Your task to perform on an android device: toggle airplane mode Image 0: 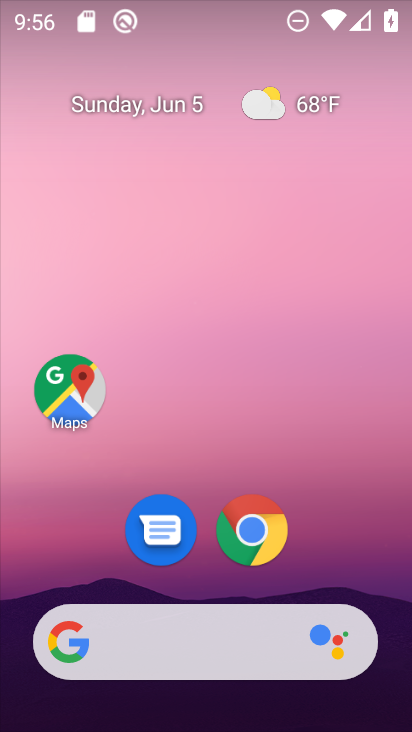
Step 0: drag from (391, 622) to (315, 79)
Your task to perform on an android device: toggle airplane mode Image 1: 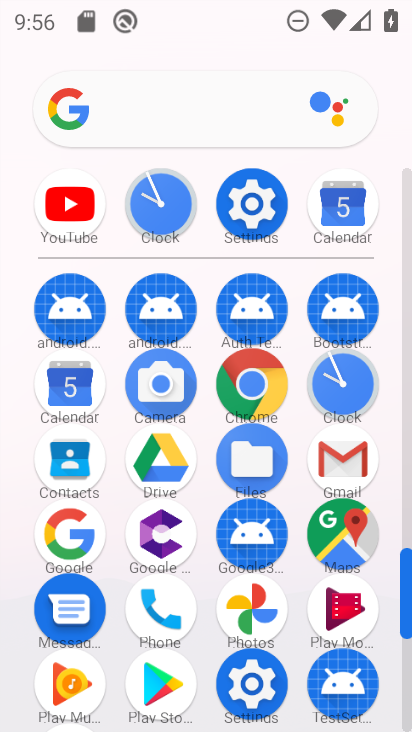
Step 1: click (411, 683)
Your task to perform on an android device: toggle airplane mode Image 2: 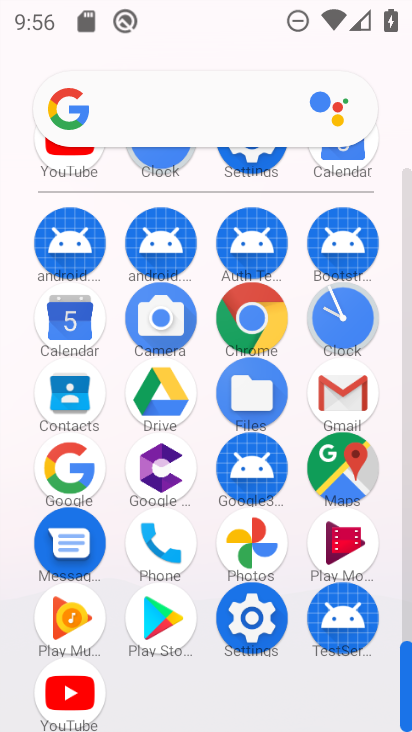
Step 2: click (251, 613)
Your task to perform on an android device: toggle airplane mode Image 3: 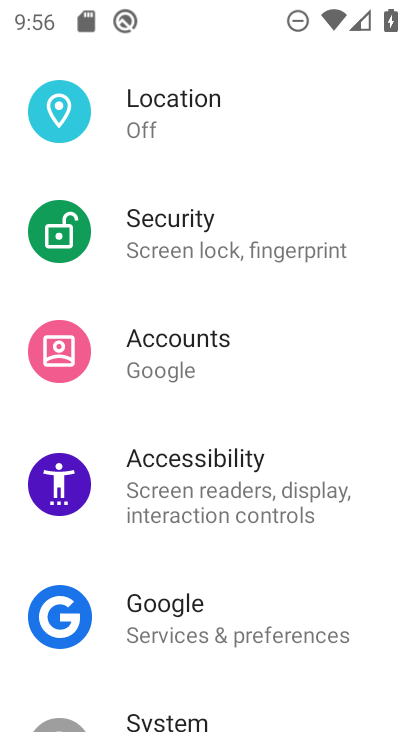
Step 3: drag from (298, 155) to (328, 513)
Your task to perform on an android device: toggle airplane mode Image 4: 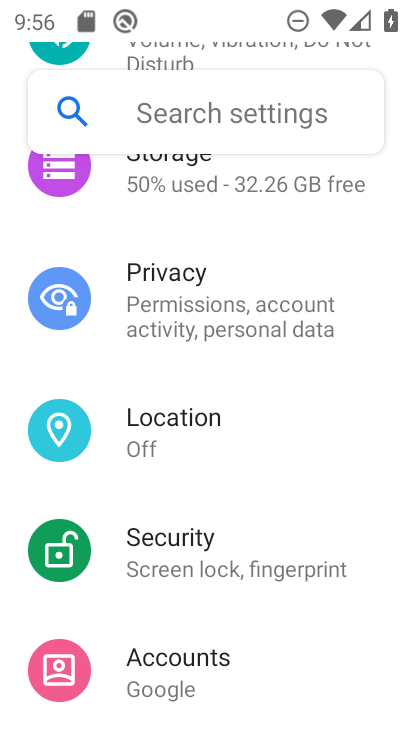
Step 4: drag from (338, 219) to (359, 536)
Your task to perform on an android device: toggle airplane mode Image 5: 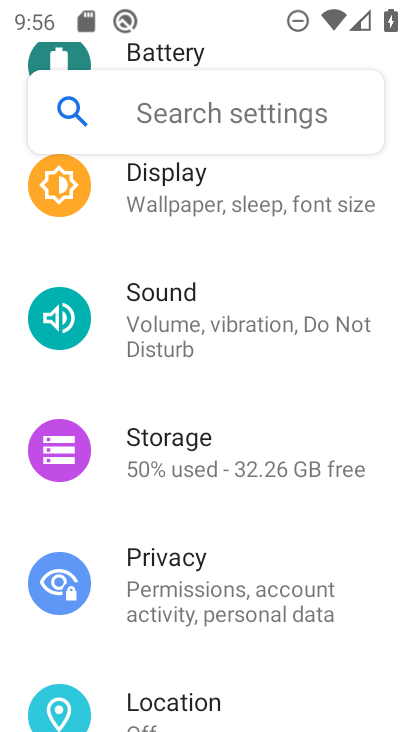
Step 5: drag from (367, 279) to (387, 665)
Your task to perform on an android device: toggle airplane mode Image 6: 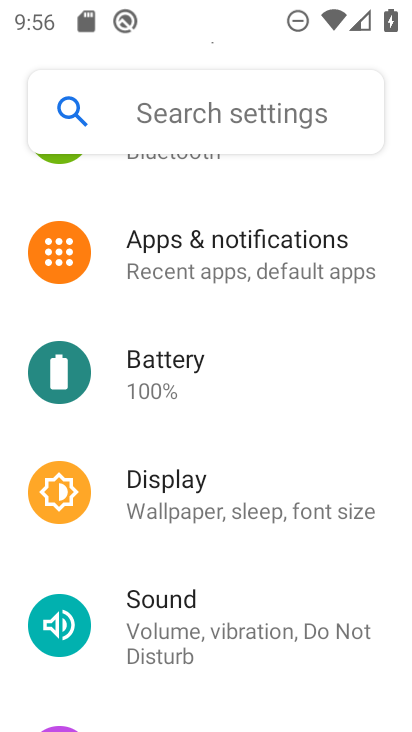
Step 6: drag from (384, 301) to (394, 602)
Your task to perform on an android device: toggle airplane mode Image 7: 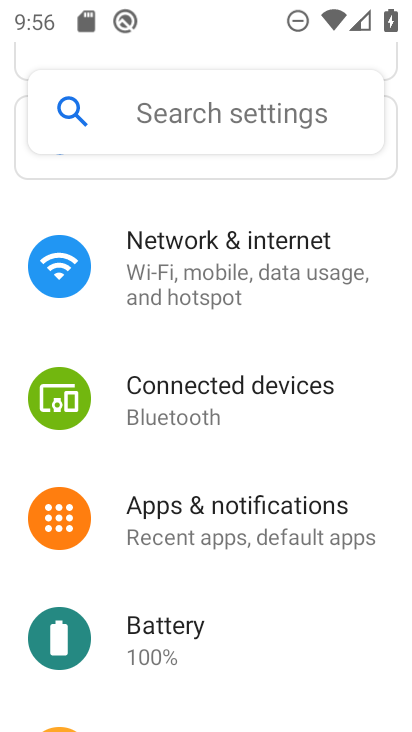
Step 7: click (187, 249)
Your task to perform on an android device: toggle airplane mode Image 8: 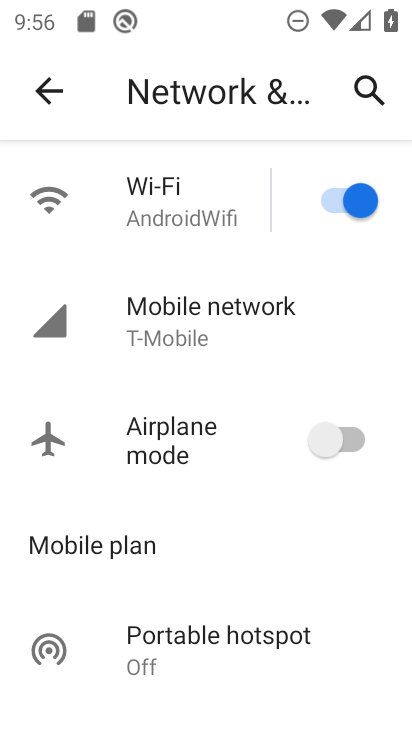
Step 8: click (355, 434)
Your task to perform on an android device: toggle airplane mode Image 9: 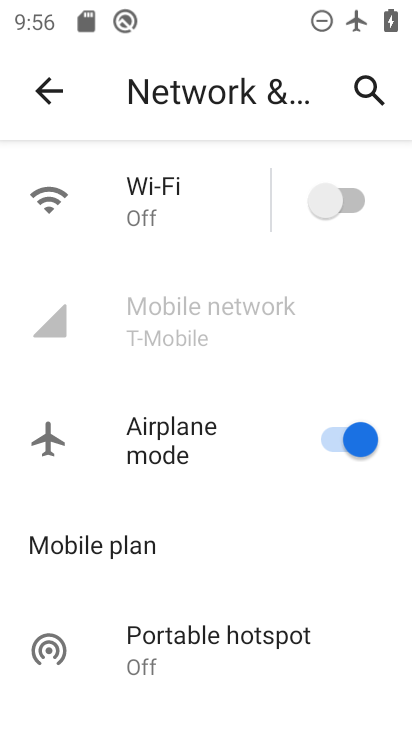
Step 9: task complete